Your task to perform on an android device: turn on airplane mode Image 0: 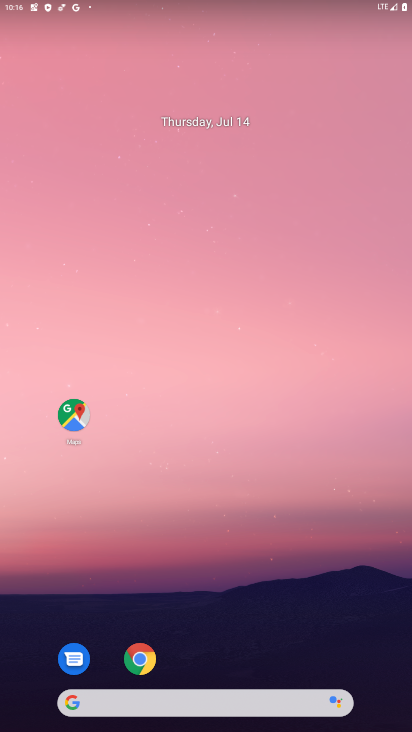
Step 0: drag from (347, 561) to (258, 141)
Your task to perform on an android device: turn on airplane mode Image 1: 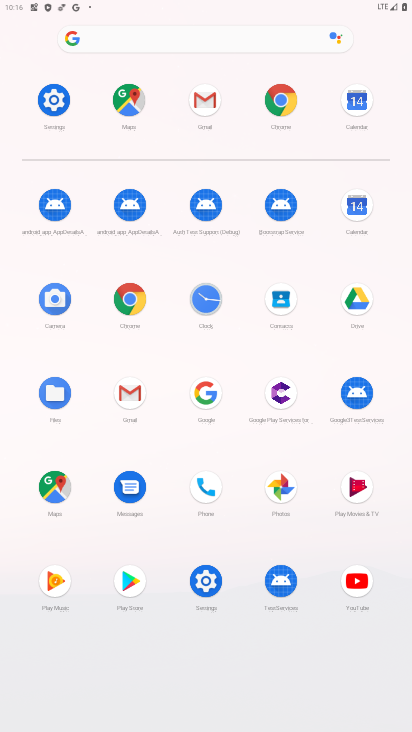
Step 1: click (52, 91)
Your task to perform on an android device: turn on airplane mode Image 2: 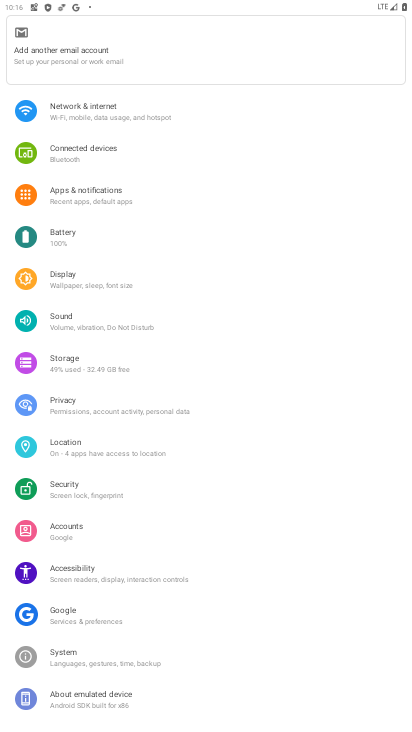
Step 2: click (62, 112)
Your task to perform on an android device: turn on airplane mode Image 3: 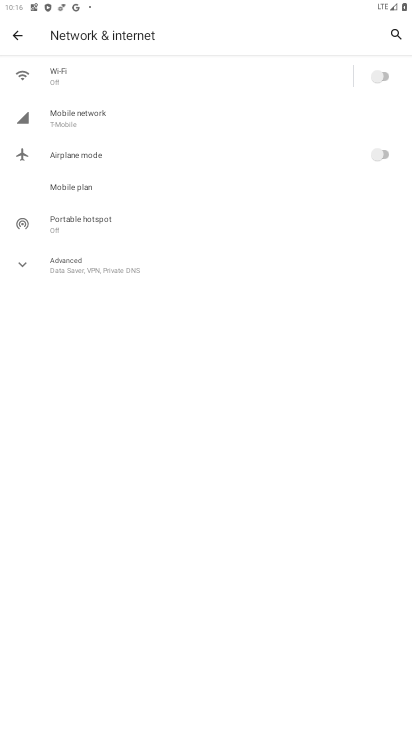
Step 3: click (389, 152)
Your task to perform on an android device: turn on airplane mode Image 4: 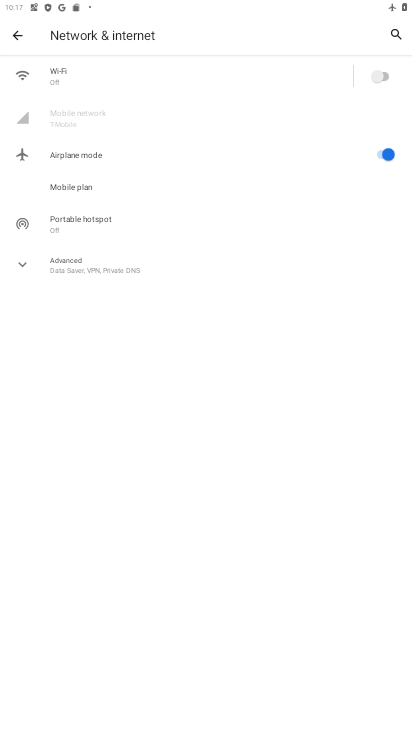
Step 4: task complete